Your task to perform on an android device: Open Google Image 0: 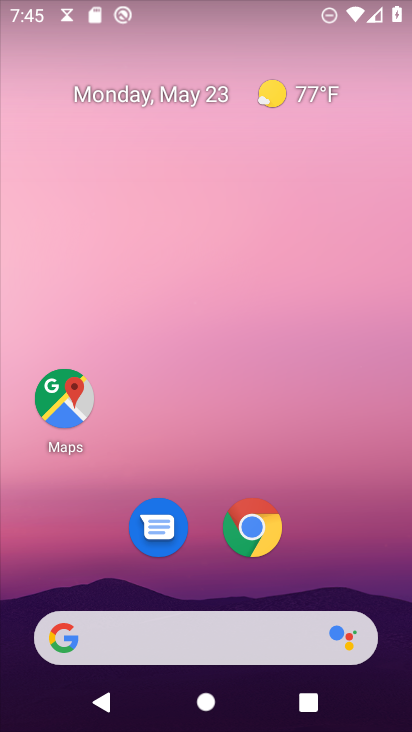
Step 0: press home button
Your task to perform on an android device: Open Google Image 1: 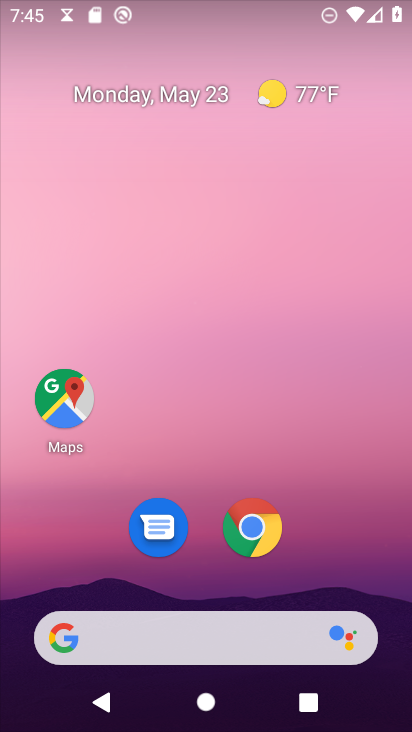
Step 1: drag from (244, 643) to (245, 258)
Your task to perform on an android device: Open Google Image 2: 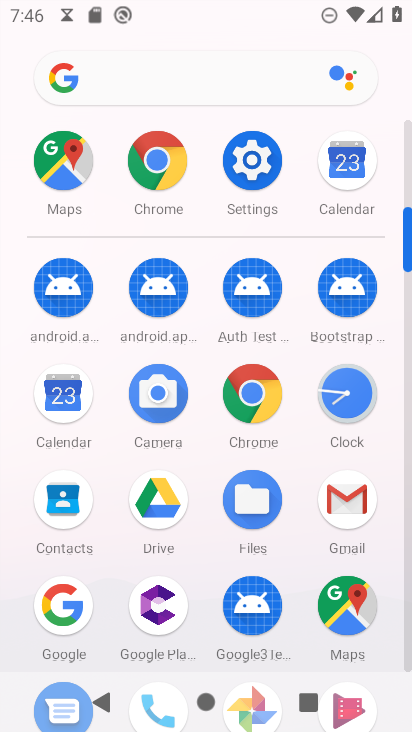
Step 2: click (57, 77)
Your task to perform on an android device: Open Google Image 3: 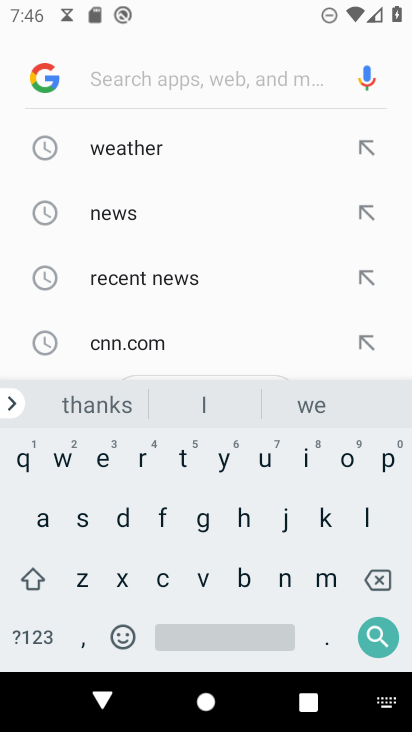
Step 3: click (32, 60)
Your task to perform on an android device: Open Google Image 4: 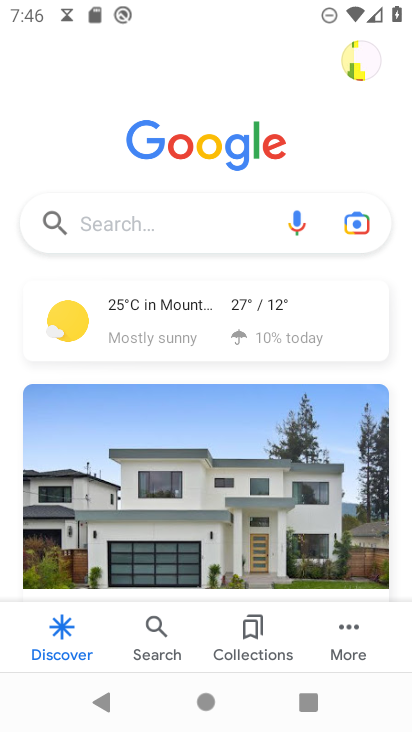
Step 4: task complete